Your task to perform on an android device: View the shopping cart on amazon.com. Search for "razer thresher" on amazon.com, select the first entry, and add it to the cart. Image 0: 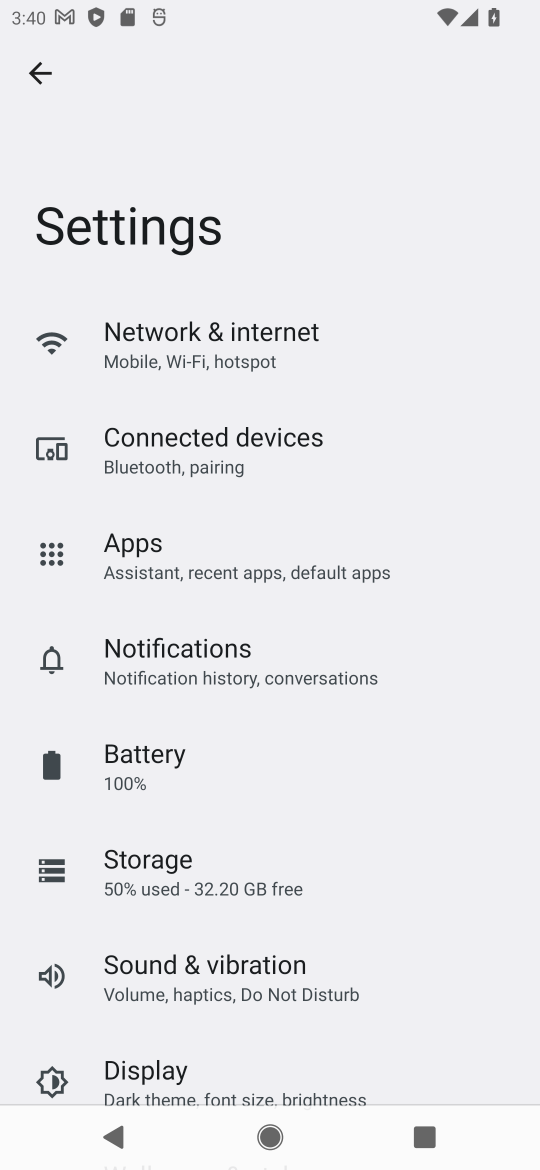
Step 0: press home button
Your task to perform on an android device: View the shopping cart on amazon.com. Search for "razer thresher" on amazon.com, select the first entry, and add it to the cart. Image 1: 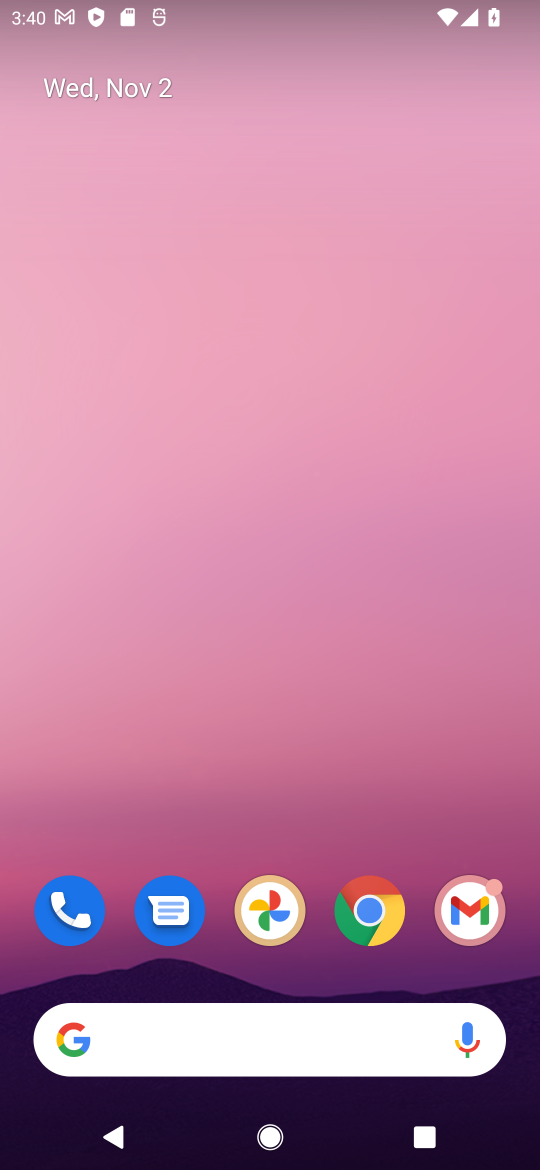
Step 1: click (395, 908)
Your task to perform on an android device: View the shopping cart on amazon.com. Search for "razer thresher" on amazon.com, select the first entry, and add it to the cart. Image 2: 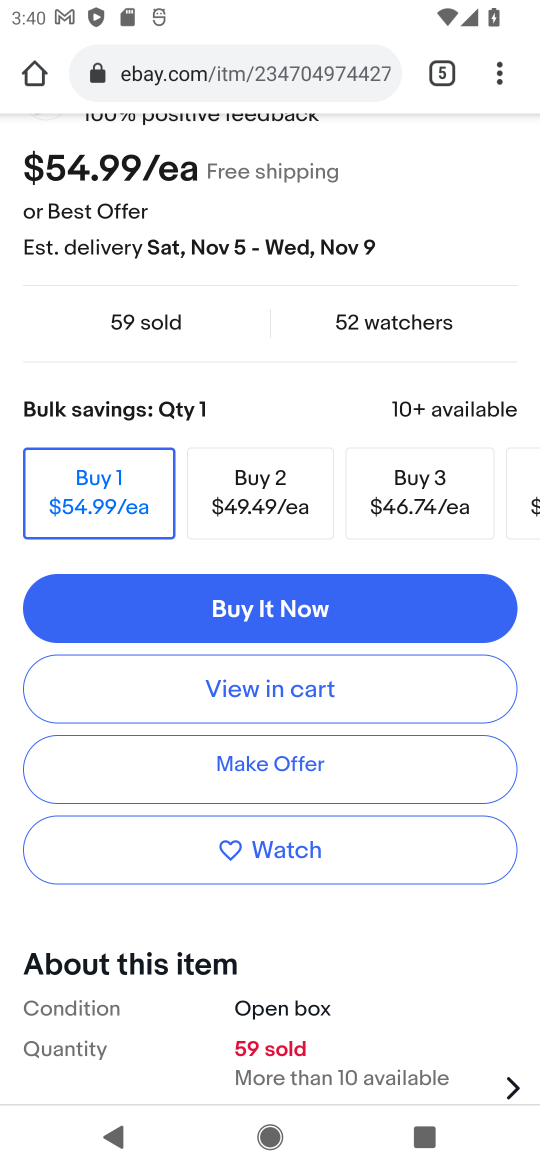
Step 2: click (443, 73)
Your task to perform on an android device: View the shopping cart on amazon.com. Search for "razer thresher" on amazon.com, select the first entry, and add it to the cart. Image 3: 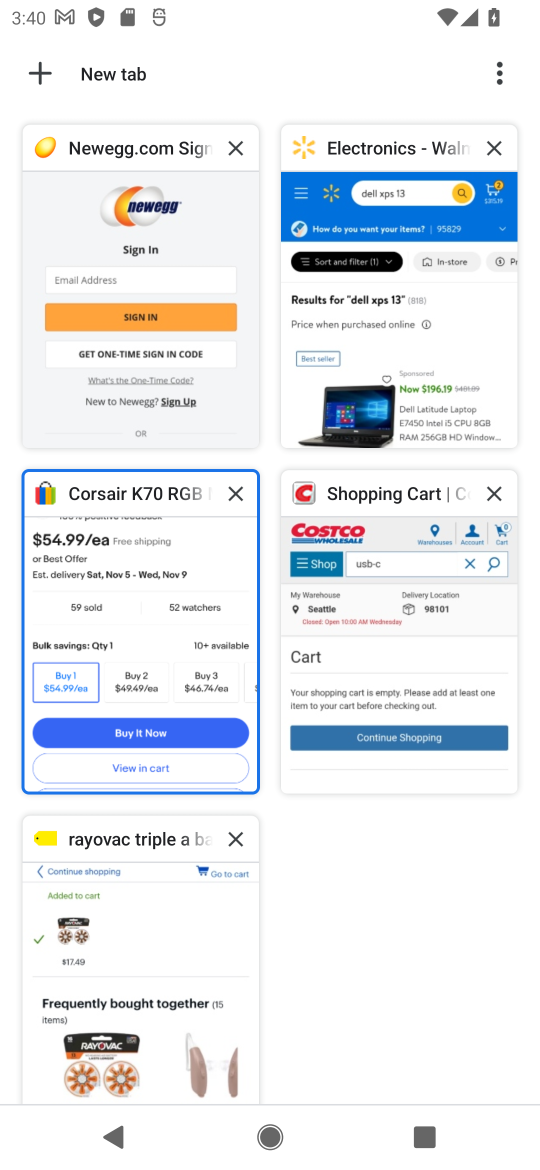
Step 3: click (41, 88)
Your task to perform on an android device: View the shopping cart on amazon.com. Search for "razer thresher" on amazon.com, select the first entry, and add it to the cart. Image 4: 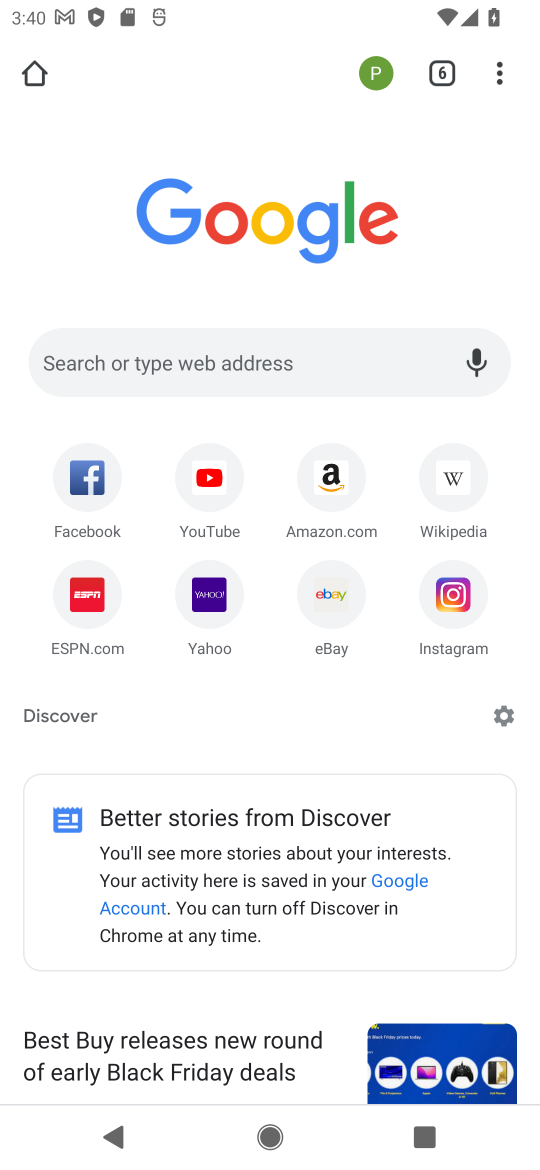
Step 4: click (338, 474)
Your task to perform on an android device: View the shopping cart on amazon.com. Search for "razer thresher" on amazon.com, select the first entry, and add it to the cart. Image 5: 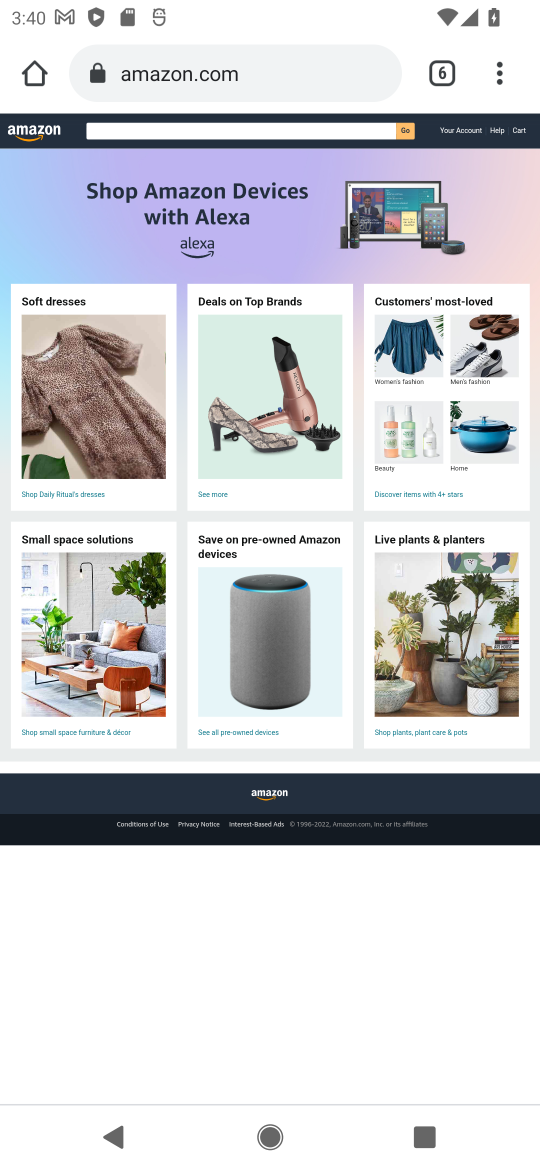
Step 5: click (438, 69)
Your task to perform on an android device: View the shopping cart on amazon.com. Search for "razer thresher" on amazon.com, select the first entry, and add it to the cart. Image 6: 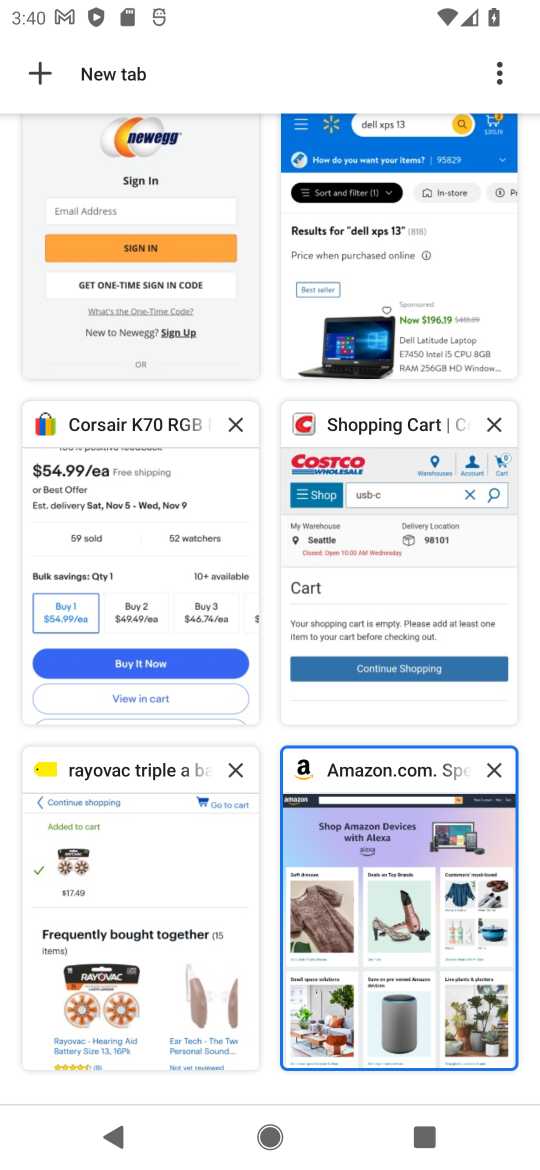
Step 6: click (493, 770)
Your task to perform on an android device: View the shopping cart on amazon.com. Search for "razer thresher" on amazon.com, select the first entry, and add it to the cart. Image 7: 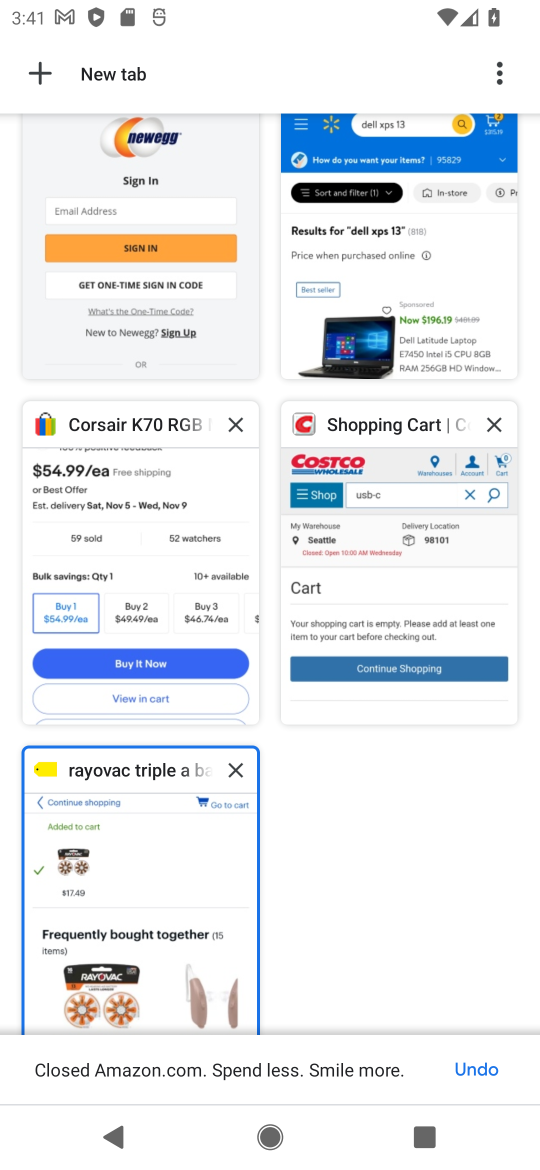
Step 7: click (38, 77)
Your task to perform on an android device: View the shopping cart on amazon.com. Search for "razer thresher" on amazon.com, select the first entry, and add it to the cart. Image 8: 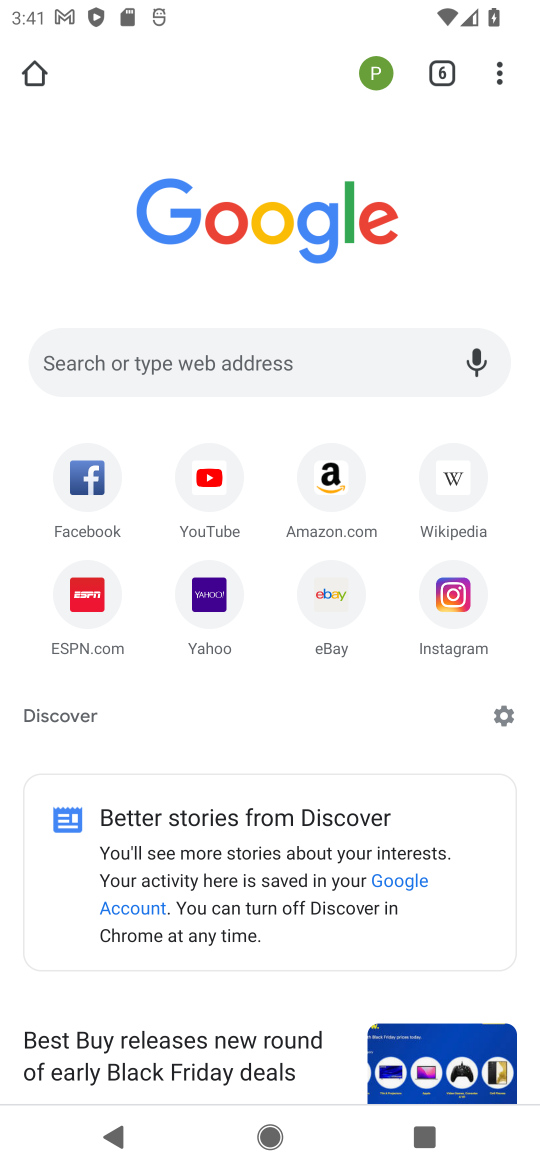
Step 8: click (229, 361)
Your task to perform on an android device: View the shopping cart on amazon.com. Search for "razer thresher" on amazon.com, select the first entry, and add it to the cart. Image 9: 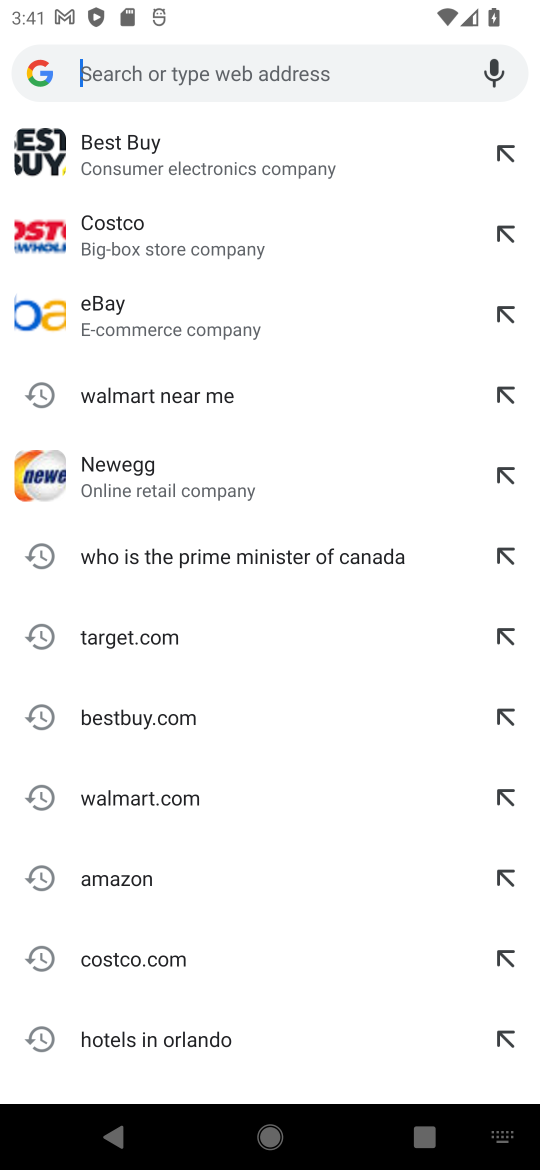
Step 9: type "amazon"
Your task to perform on an android device: View the shopping cart on amazon.com. Search for "razer thresher" on amazon.com, select the first entry, and add it to the cart. Image 10: 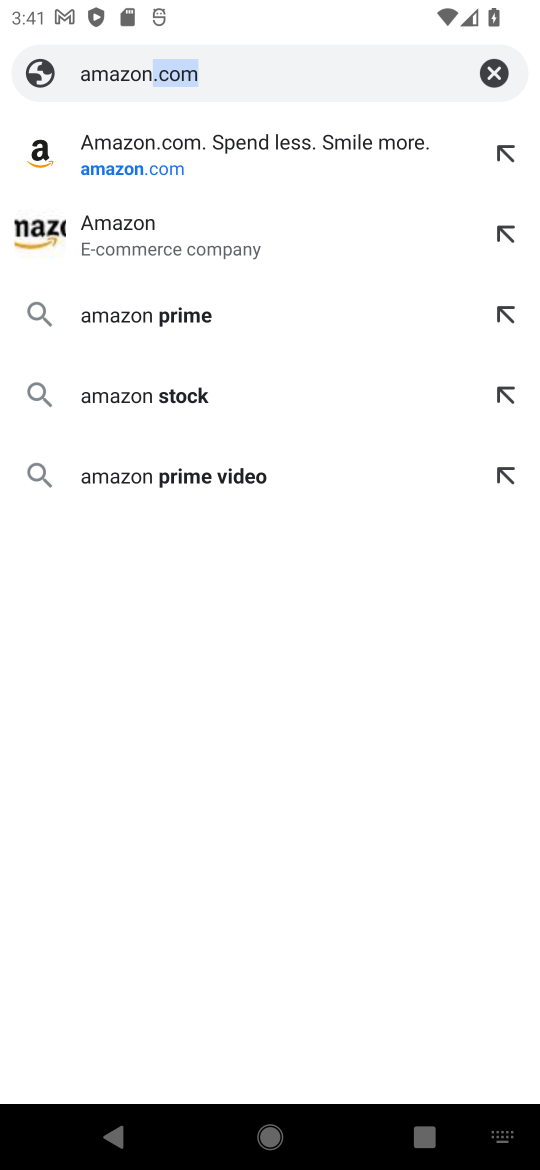
Step 10: click (166, 150)
Your task to perform on an android device: View the shopping cart on amazon.com. Search for "razer thresher" on amazon.com, select the first entry, and add it to the cart. Image 11: 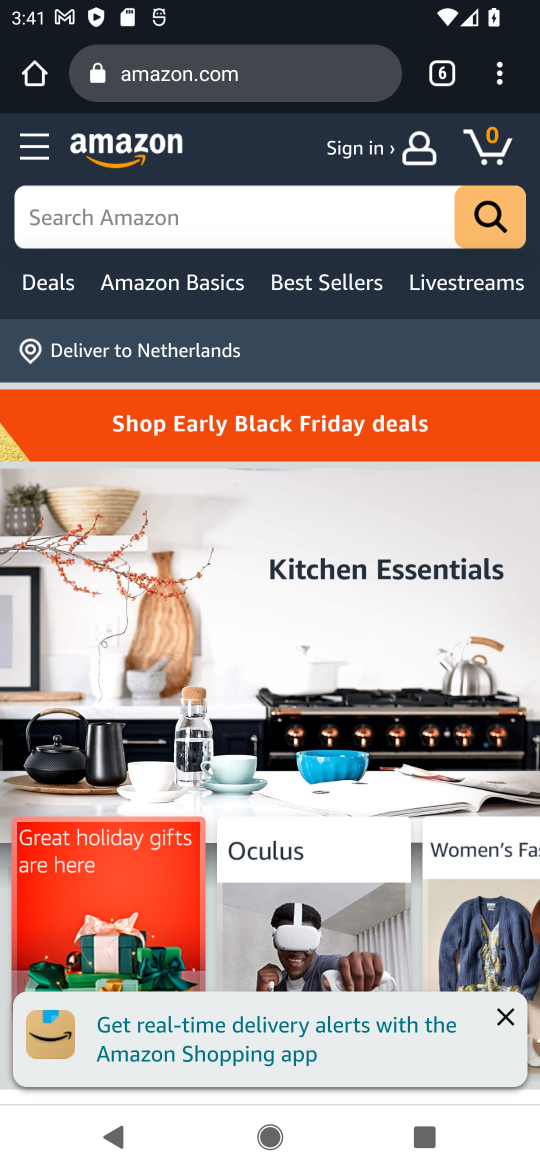
Step 11: click (186, 228)
Your task to perform on an android device: View the shopping cart on amazon.com. Search for "razer thresher" on amazon.com, select the first entry, and add it to the cart. Image 12: 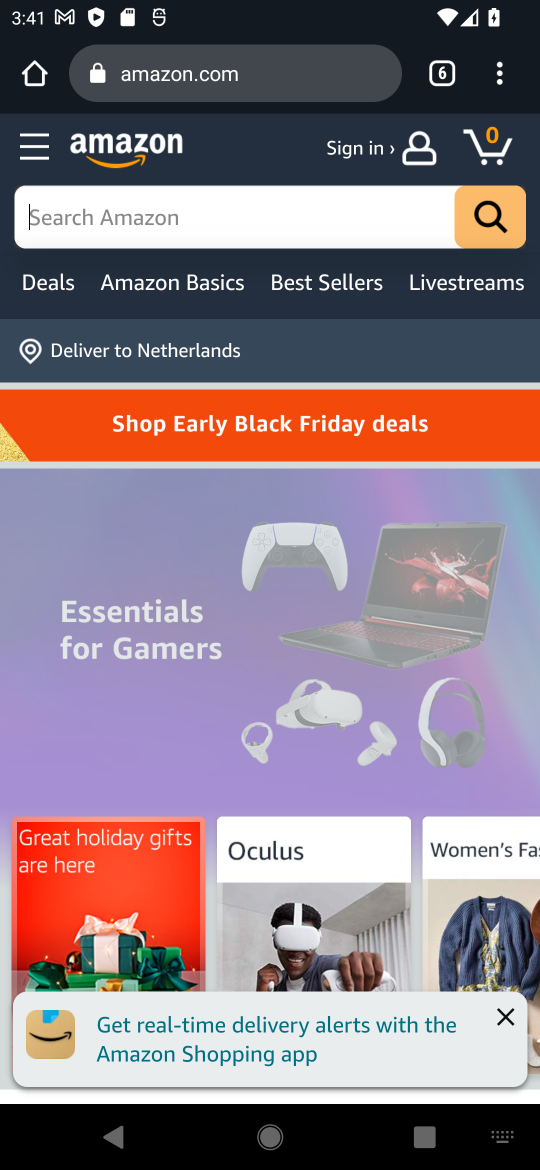
Step 12: type "razer thresher"
Your task to perform on an android device: View the shopping cart on amazon.com. Search for "razer thresher" on amazon.com, select the first entry, and add it to the cart. Image 13: 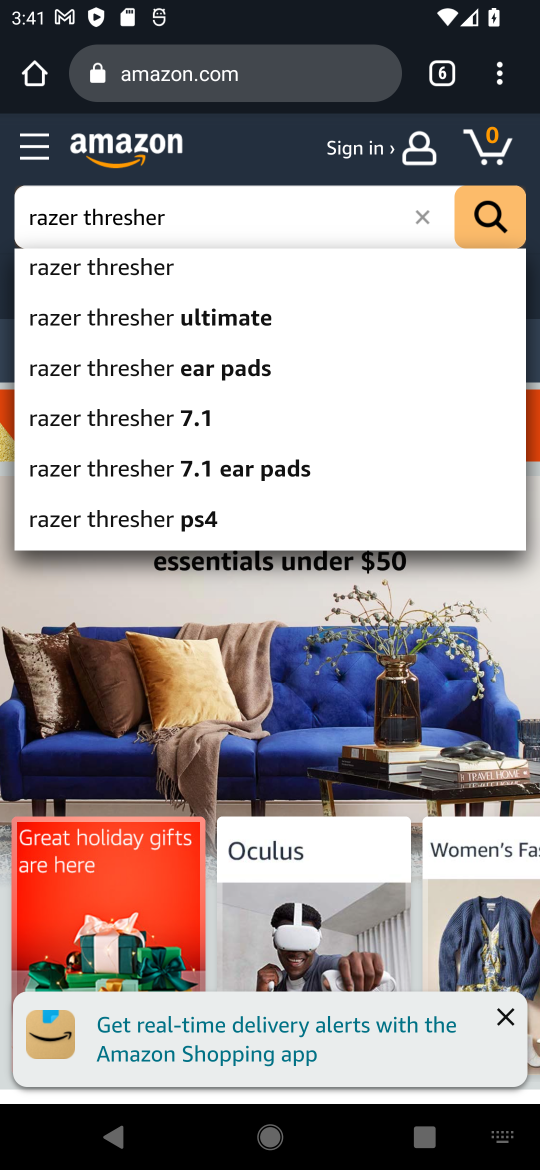
Step 13: click (127, 272)
Your task to perform on an android device: View the shopping cart on amazon.com. Search for "razer thresher" on amazon.com, select the first entry, and add it to the cart. Image 14: 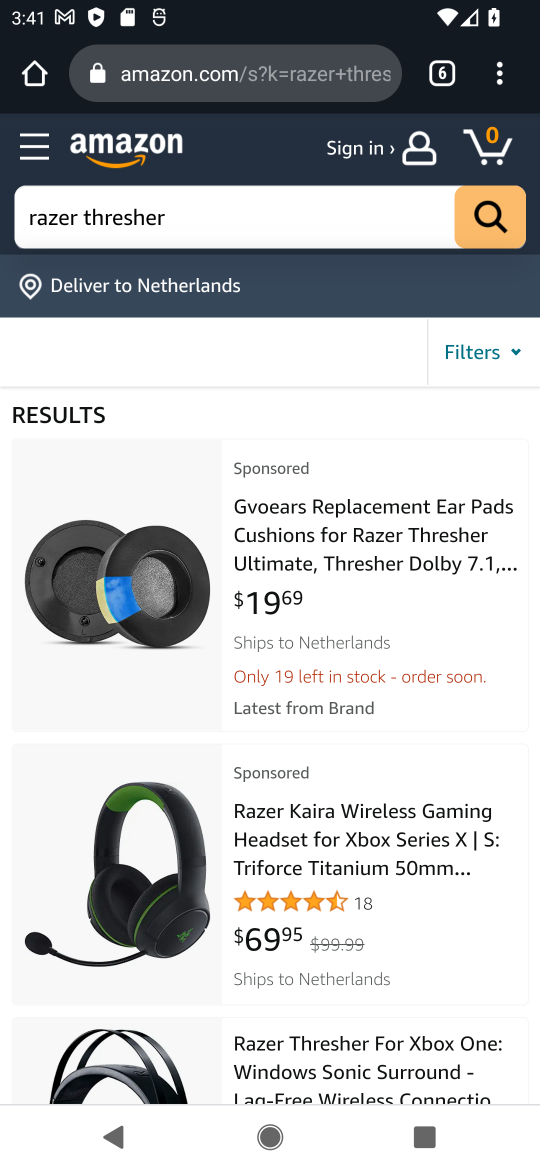
Step 14: click (398, 536)
Your task to perform on an android device: View the shopping cart on amazon.com. Search for "razer thresher" on amazon.com, select the first entry, and add it to the cart. Image 15: 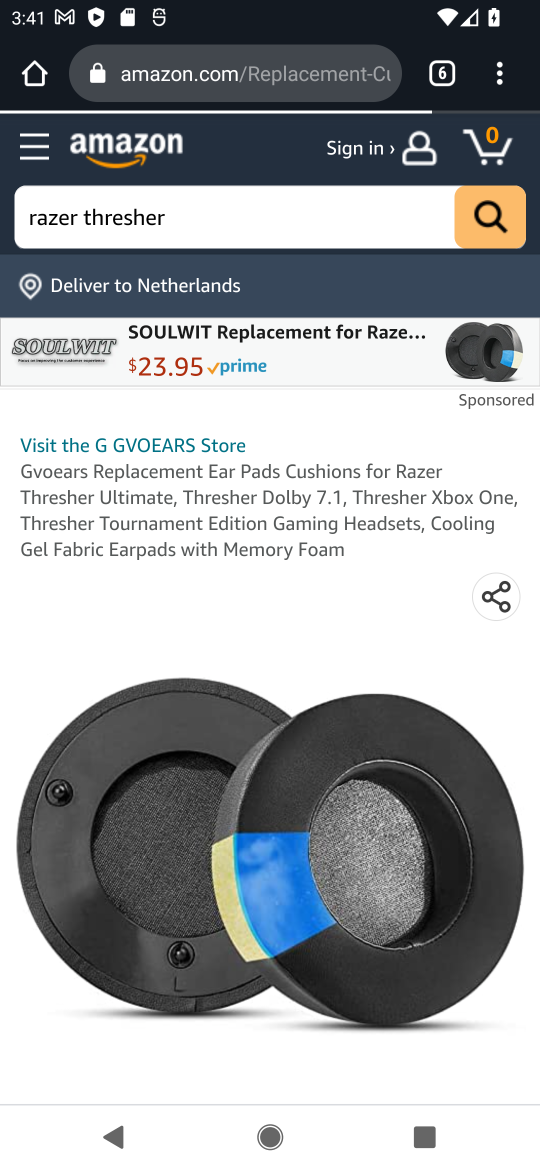
Step 15: drag from (315, 1060) to (527, 168)
Your task to perform on an android device: View the shopping cart on amazon.com. Search for "razer thresher" on amazon.com, select the first entry, and add it to the cart. Image 16: 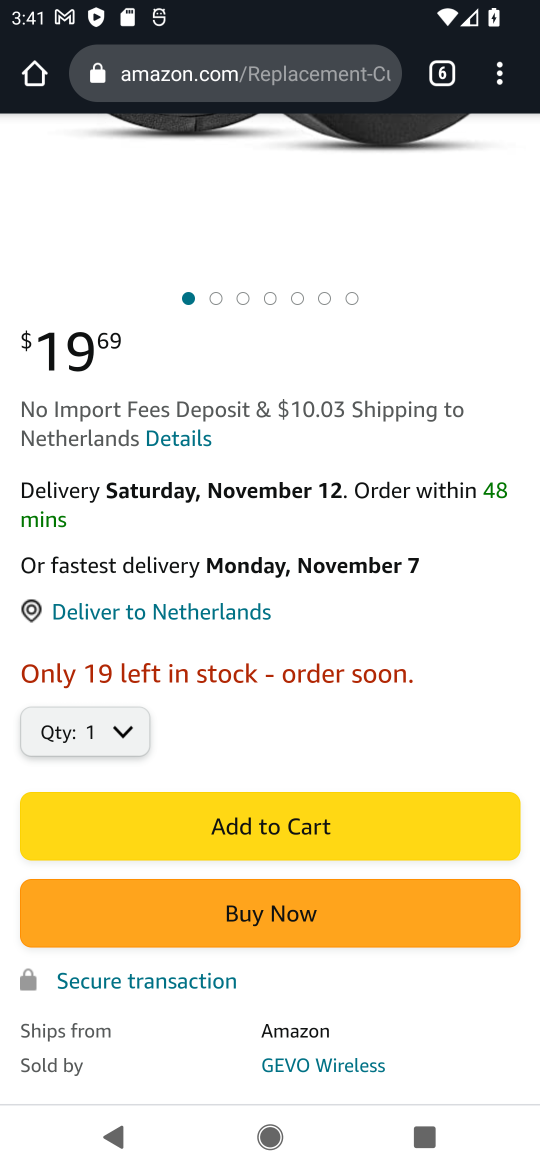
Step 16: click (270, 823)
Your task to perform on an android device: View the shopping cart on amazon.com. Search for "razer thresher" on amazon.com, select the first entry, and add it to the cart. Image 17: 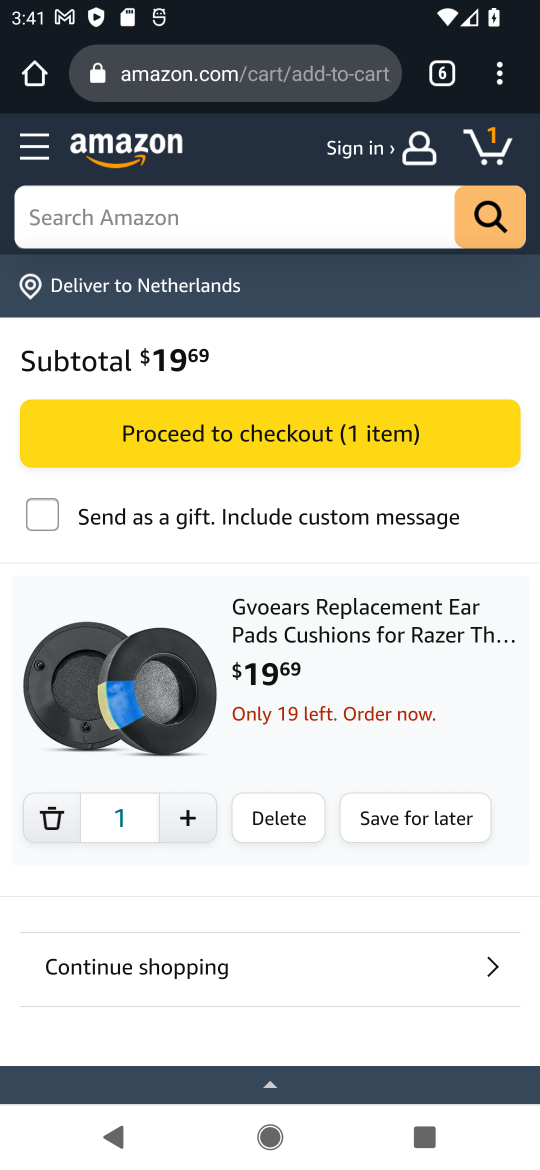
Step 17: task complete